Your task to perform on an android device: search for starred emails in the gmail app Image 0: 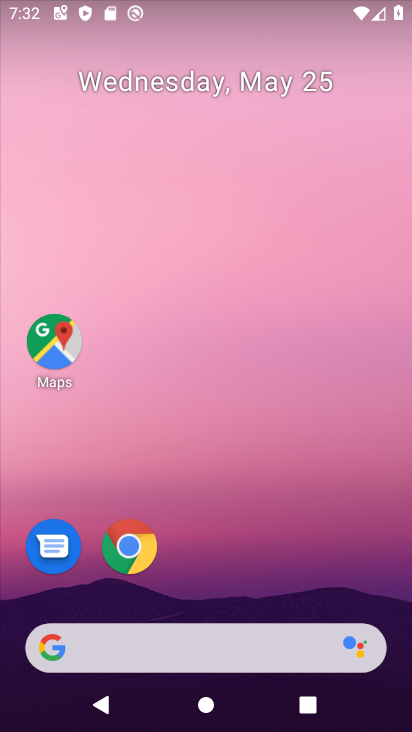
Step 0: drag from (196, 656) to (313, 288)
Your task to perform on an android device: search for starred emails in the gmail app Image 1: 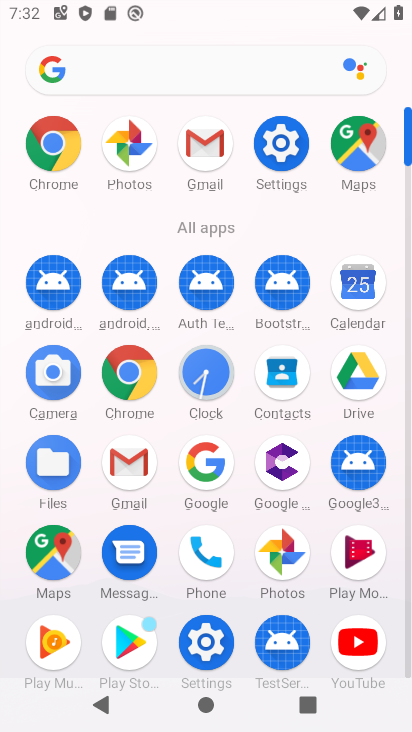
Step 1: click (213, 159)
Your task to perform on an android device: search for starred emails in the gmail app Image 2: 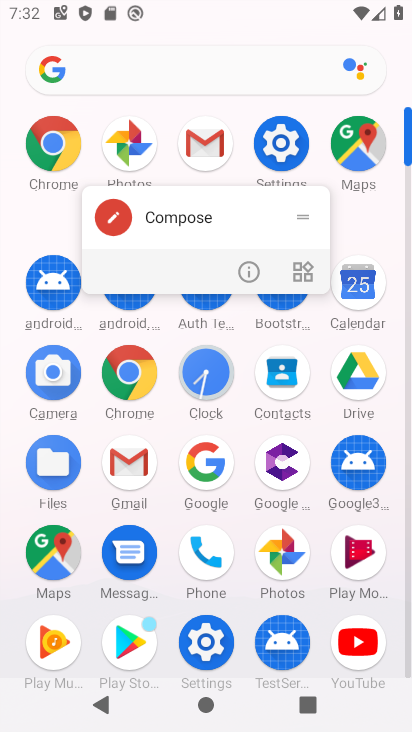
Step 2: click (201, 154)
Your task to perform on an android device: search for starred emails in the gmail app Image 3: 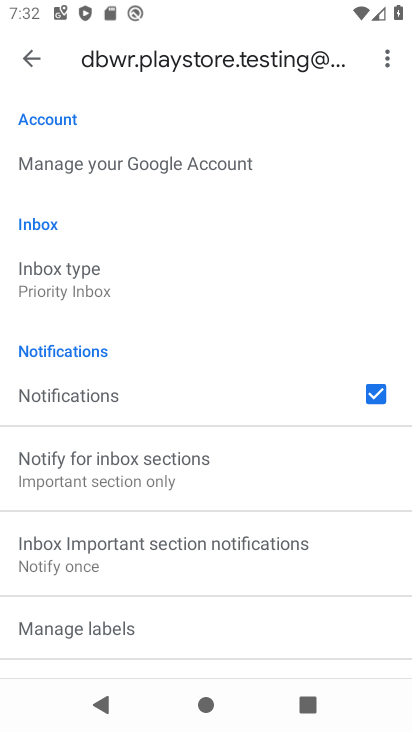
Step 3: click (35, 54)
Your task to perform on an android device: search for starred emails in the gmail app Image 4: 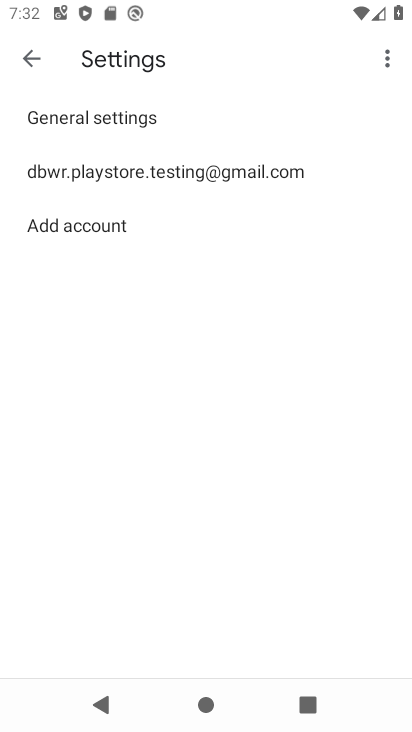
Step 4: click (35, 54)
Your task to perform on an android device: search for starred emails in the gmail app Image 5: 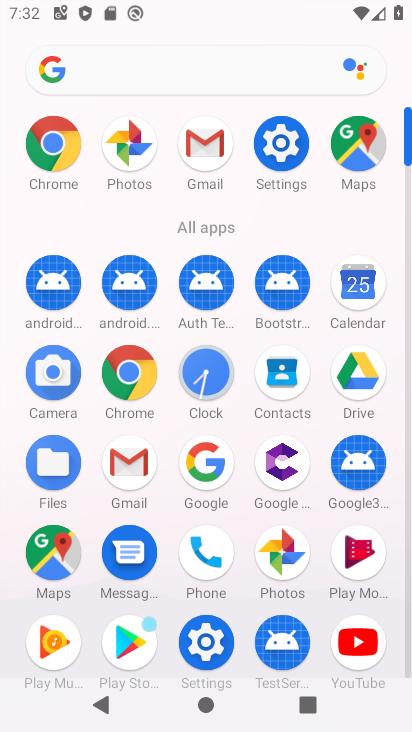
Step 5: click (209, 156)
Your task to perform on an android device: search for starred emails in the gmail app Image 6: 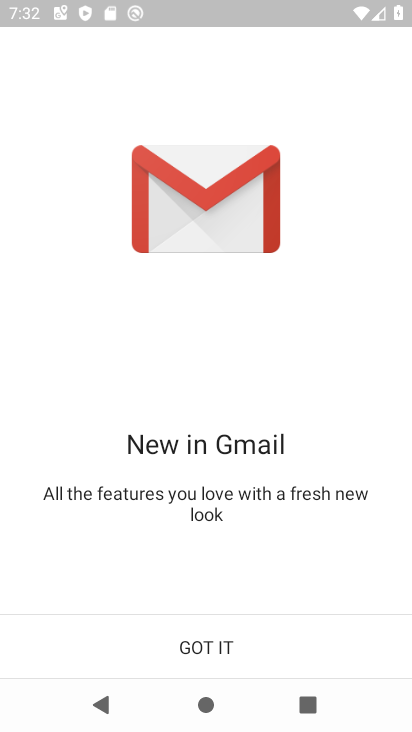
Step 6: click (224, 647)
Your task to perform on an android device: search for starred emails in the gmail app Image 7: 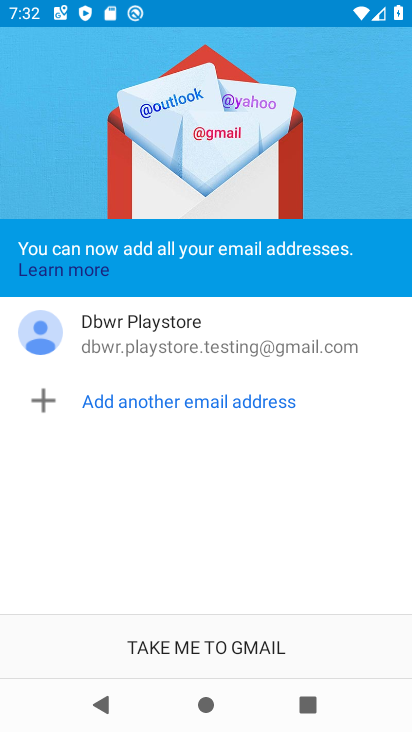
Step 7: click (257, 639)
Your task to perform on an android device: search for starred emails in the gmail app Image 8: 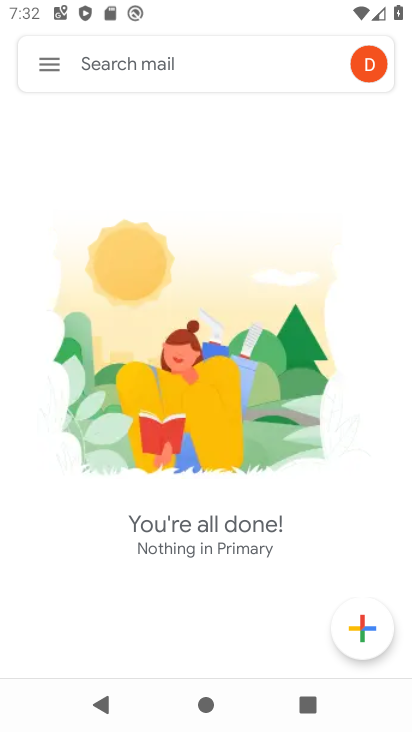
Step 8: click (54, 68)
Your task to perform on an android device: search for starred emails in the gmail app Image 9: 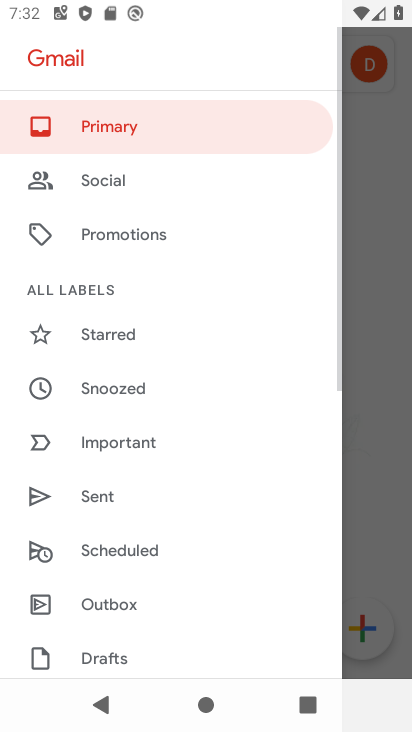
Step 9: click (132, 335)
Your task to perform on an android device: search for starred emails in the gmail app Image 10: 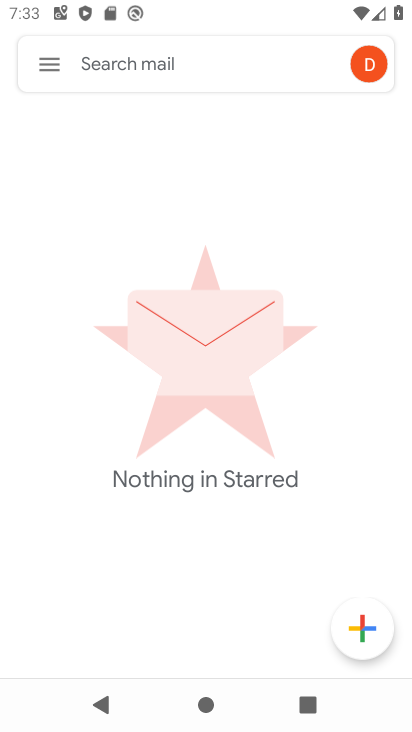
Step 10: task complete